Your task to perform on an android device: Search for flights from NYC to Chicago Image 0: 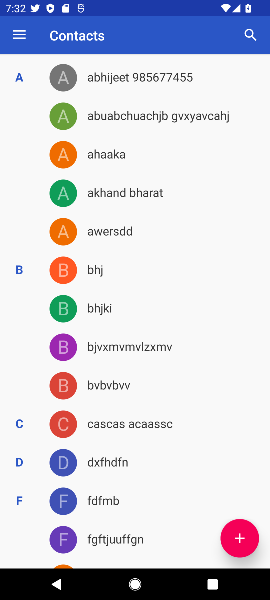
Step 0: press home button
Your task to perform on an android device: Search for flights from NYC to Chicago Image 1: 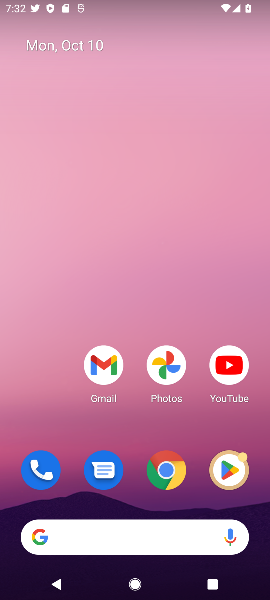
Step 1: click (68, 538)
Your task to perform on an android device: Search for flights from NYC to Chicago Image 2: 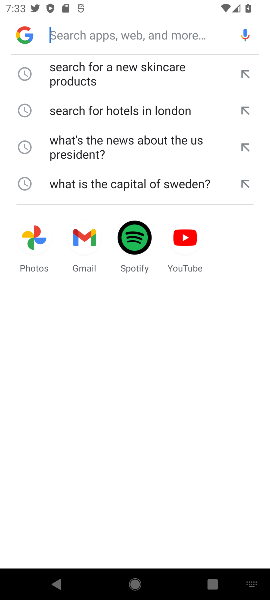
Step 2: type "Search for flights from NYC to Chicago"
Your task to perform on an android device: Search for flights from NYC to Chicago Image 3: 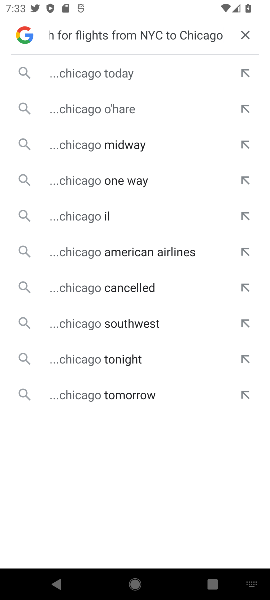
Step 3: click (144, 65)
Your task to perform on an android device: Search for flights from NYC to Chicago Image 4: 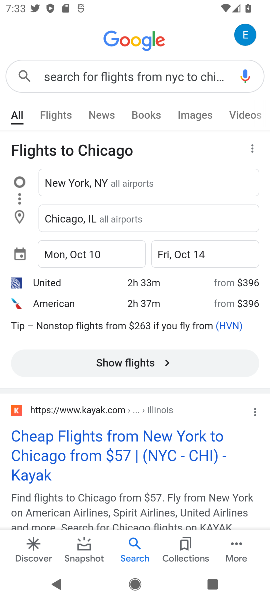
Step 4: click (93, 366)
Your task to perform on an android device: Search for flights from NYC to Chicago Image 5: 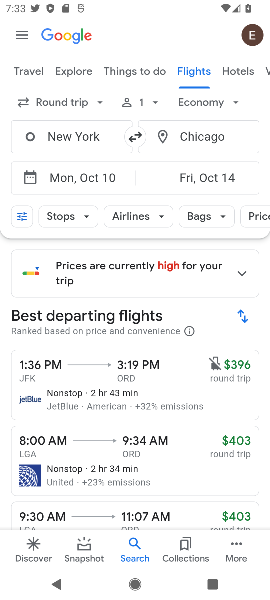
Step 5: task complete